Your task to perform on an android device: Is it going to rain today? Image 0: 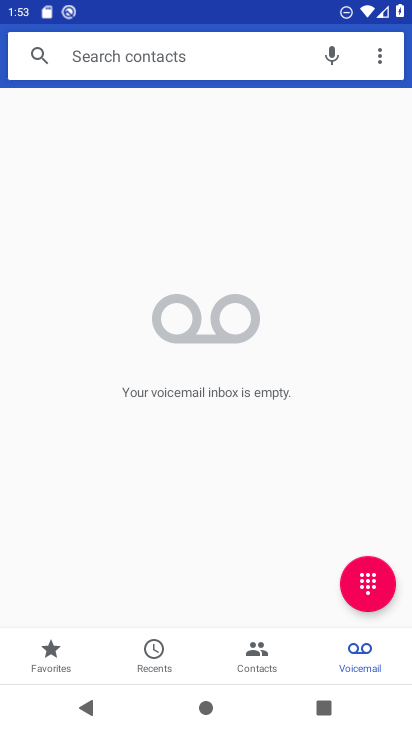
Step 0: press home button
Your task to perform on an android device: Is it going to rain today? Image 1: 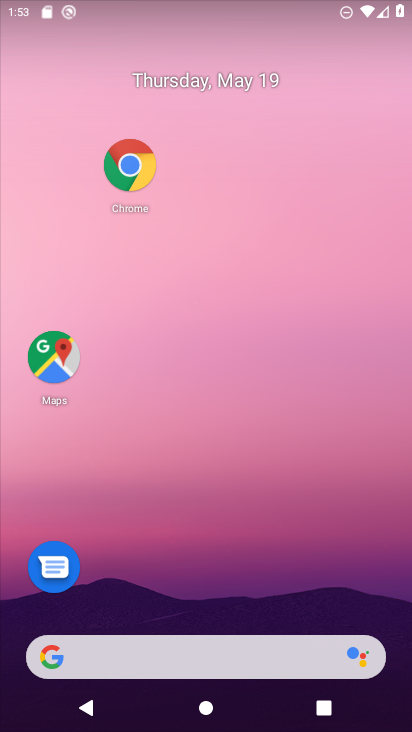
Step 1: drag from (290, 460) to (368, 103)
Your task to perform on an android device: Is it going to rain today? Image 2: 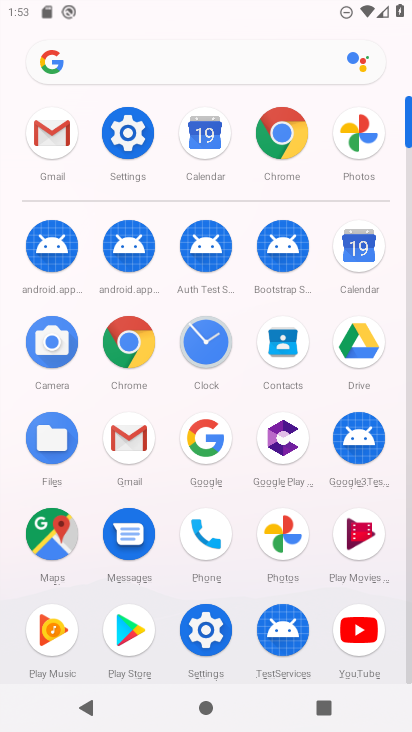
Step 2: drag from (283, 414) to (334, 192)
Your task to perform on an android device: Is it going to rain today? Image 3: 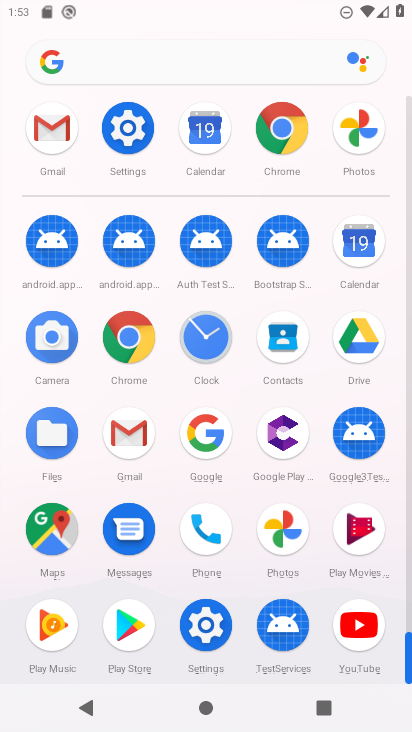
Step 3: click (326, 115)
Your task to perform on an android device: Is it going to rain today? Image 4: 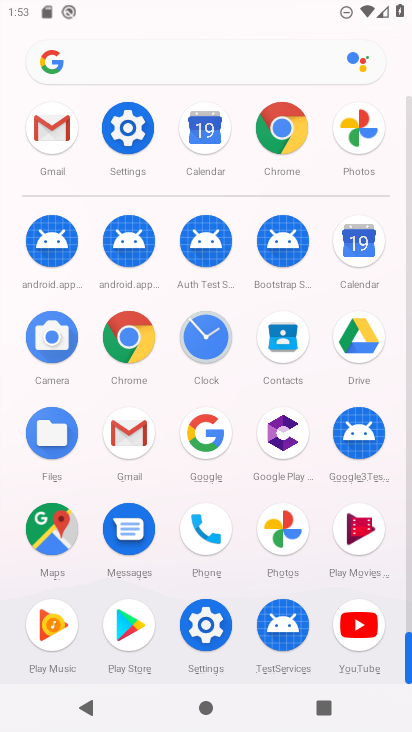
Step 4: click (209, 436)
Your task to perform on an android device: Is it going to rain today? Image 5: 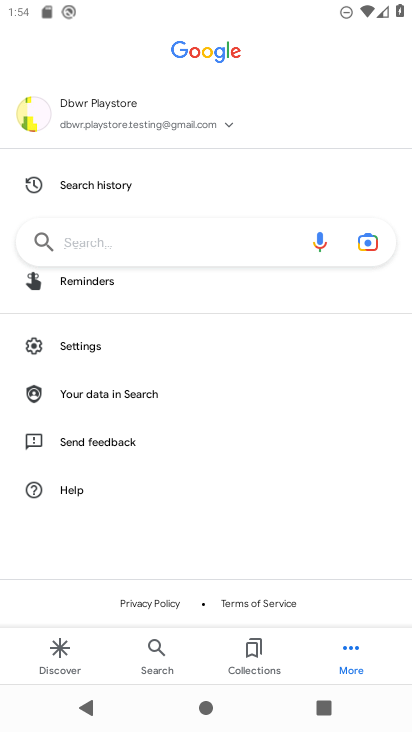
Step 5: click (159, 652)
Your task to perform on an android device: Is it going to rain today? Image 6: 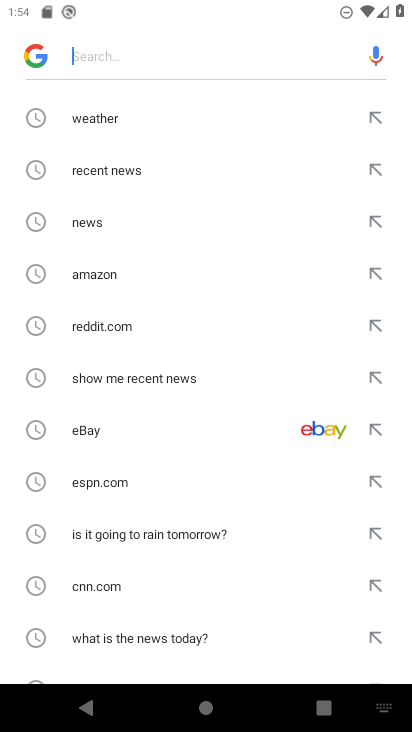
Step 6: click (138, 108)
Your task to perform on an android device: Is it going to rain today? Image 7: 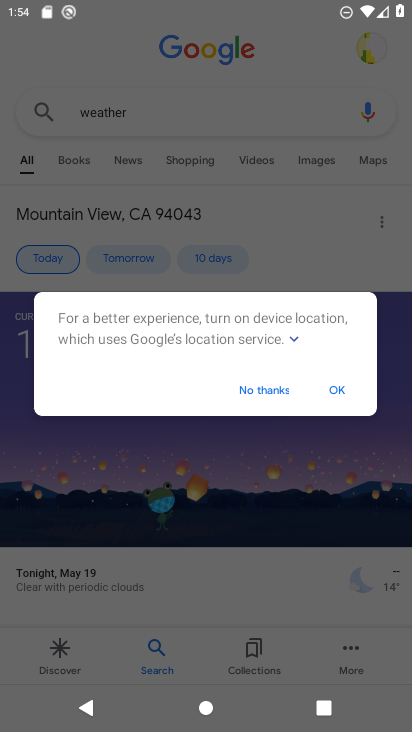
Step 7: click (257, 381)
Your task to perform on an android device: Is it going to rain today? Image 8: 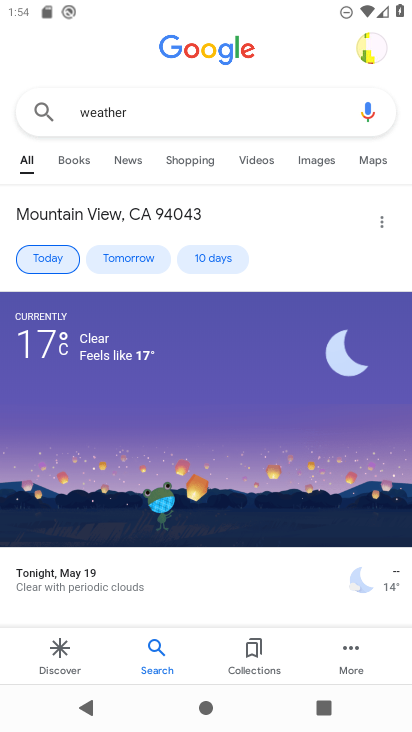
Step 8: click (246, 393)
Your task to perform on an android device: Is it going to rain today? Image 9: 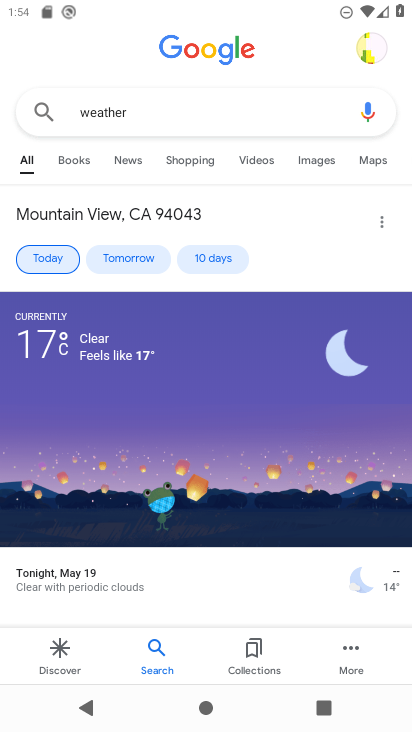
Step 9: click (264, 173)
Your task to perform on an android device: Is it going to rain today? Image 10: 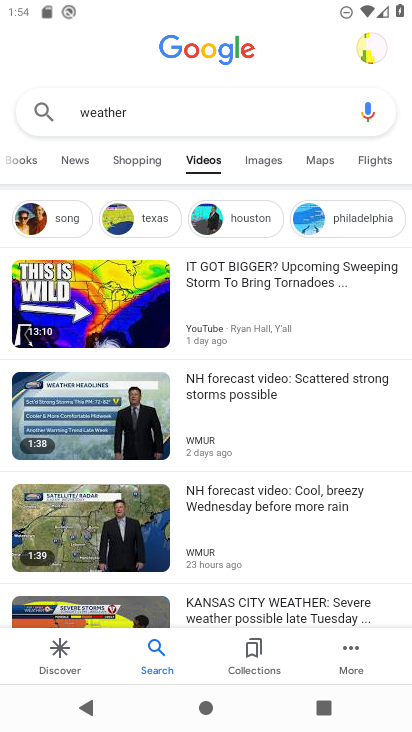
Step 10: drag from (42, 155) to (406, 148)
Your task to perform on an android device: Is it going to rain today? Image 11: 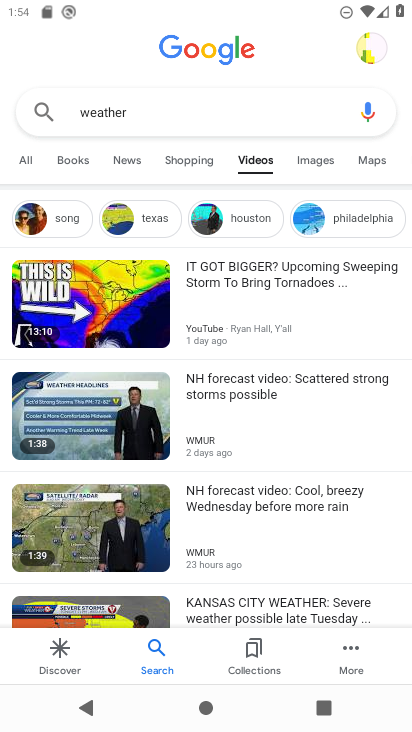
Step 11: click (18, 157)
Your task to perform on an android device: Is it going to rain today? Image 12: 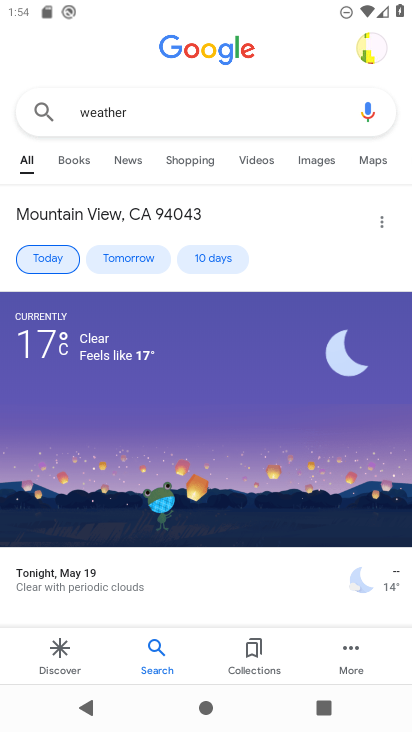
Step 12: task complete